Your task to perform on an android device: turn off smart reply in the gmail app Image 0: 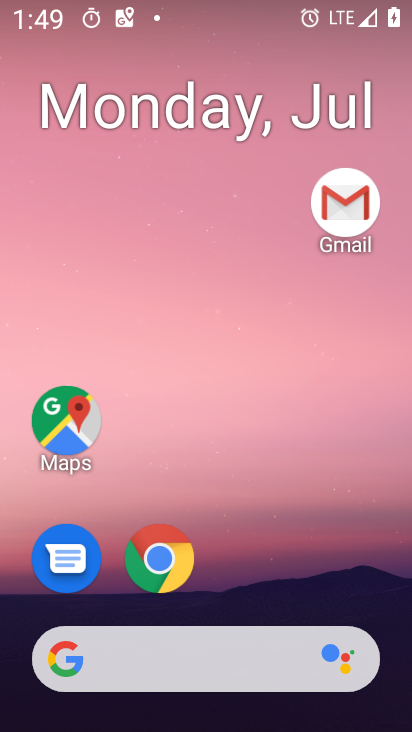
Step 0: drag from (358, 590) to (407, 127)
Your task to perform on an android device: turn off smart reply in the gmail app Image 1: 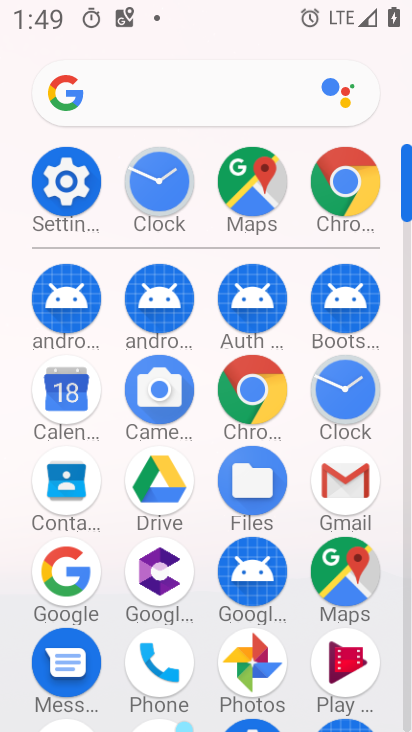
Step 1: click (354, 474)
Your task to perform on an android device: turn off smart reply in the gmail app Image 2: 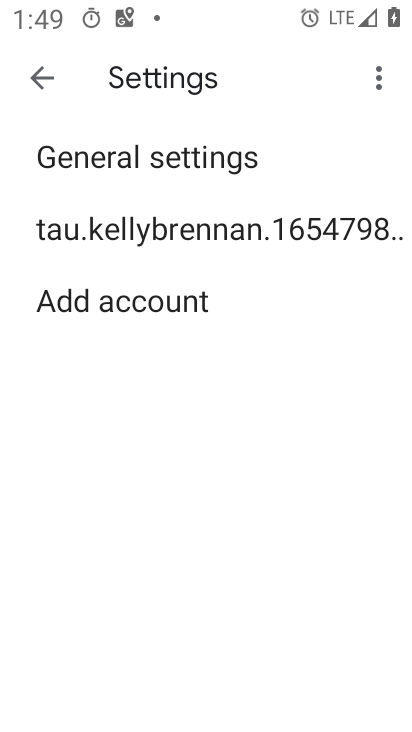
Step 2: click (254, 233)
Your task to perform on an android device: turn off smart reply in the gmail app Image 3: 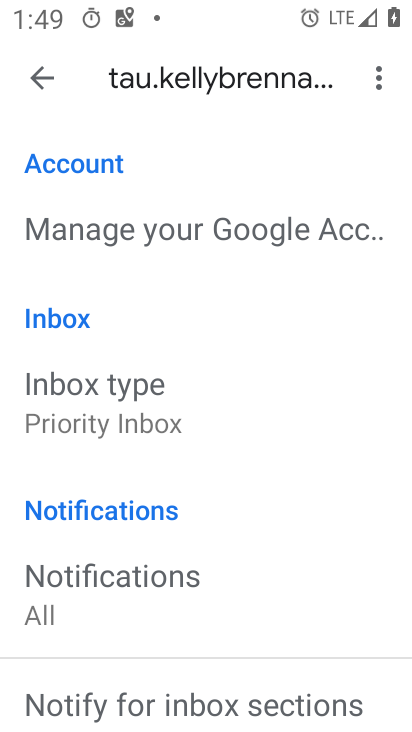
Step 3: drag from (334, 474) to (334, 407)
Your task to perform on an android device: turn off smart reply in the gmail app Image 4: 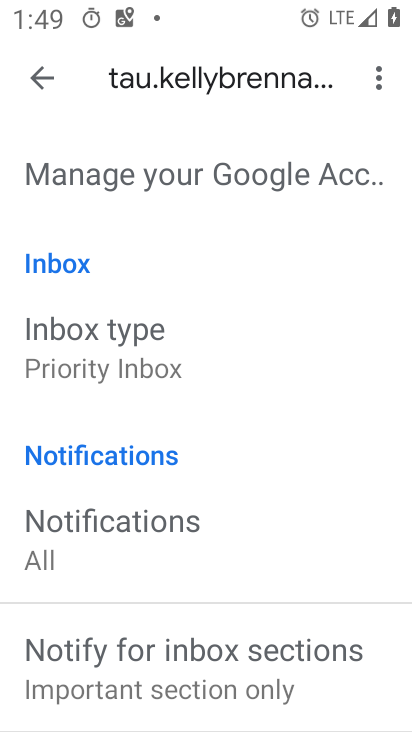
Step 4: drag from (324, 491) to (324, 415)
Your task to perform on an android device: turn off smart reply in the gmail app Image 5: 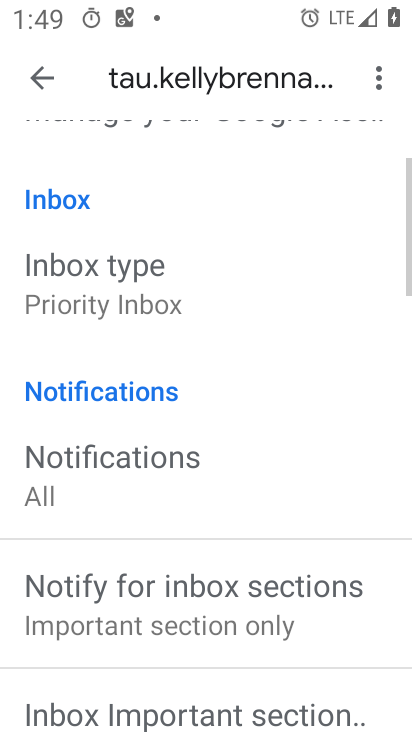
Step 5: drag from (310, 491) to (310, 420)
Your task to perform on an android device: turn off smart reply in the gmail app Image 6: 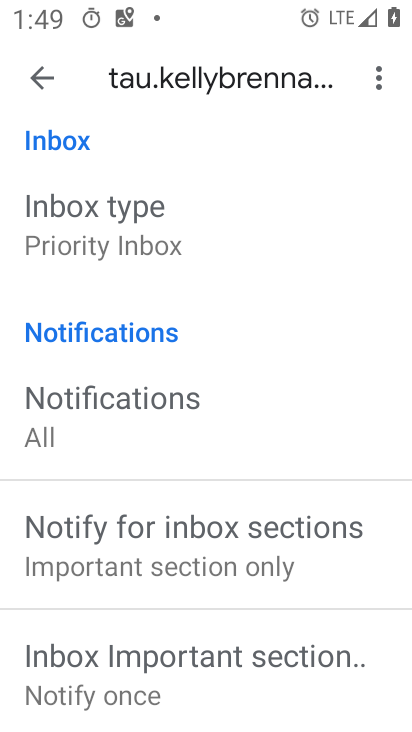
Step 6: drag from (310, 499) to (313, 412)
Your task to perform on an android device: turn off smart reply in the gmail app Image 7: 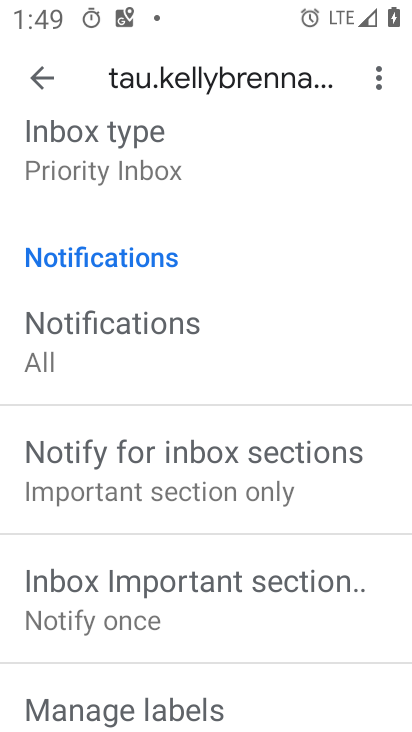
Step 7: drag from (319, 516) to (322, 423)
Your task to perform on an android device: turn off smart reply in the gmail app Image 8: 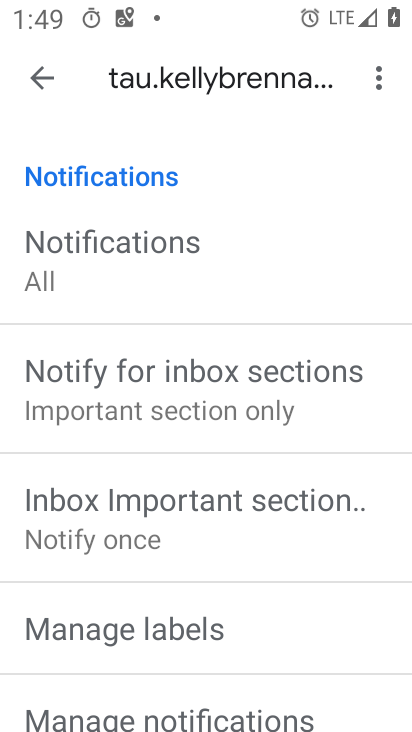
Step 8: drag from (322, 507) to (325, 439)
Your task to perform on an android device: turn off smart reply in the gmail app Image 9: 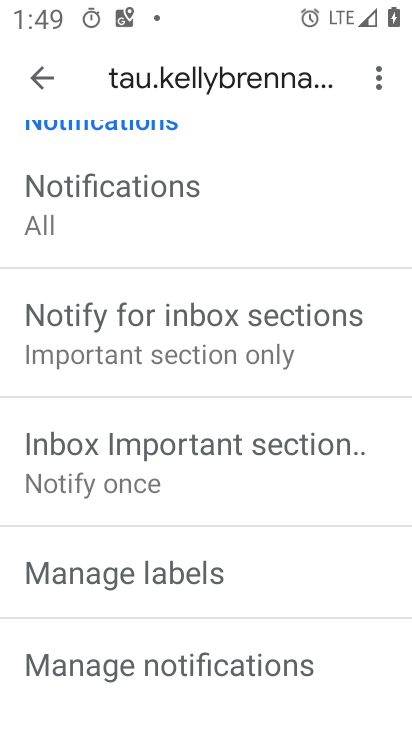
Step 9: drag from (317, 528) to (323, 440)
Your task to perform on an android device: turn off smart reply in the gmail app Image 10: 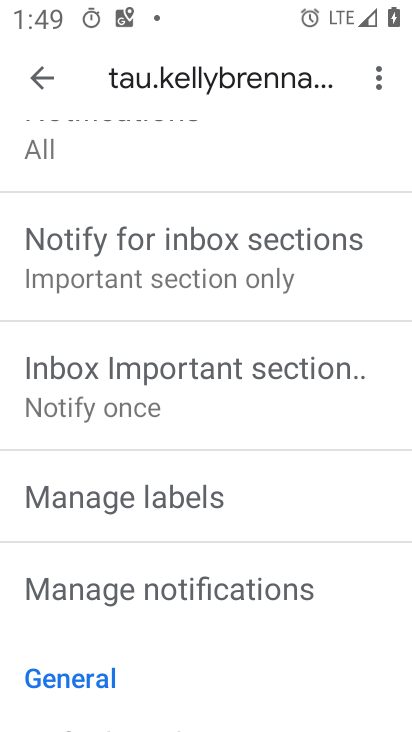
Step 10: drag from (331, 544) to (336, 441)
Your task to perform on an android device: turn off smart reply in the gmail app Image 11: 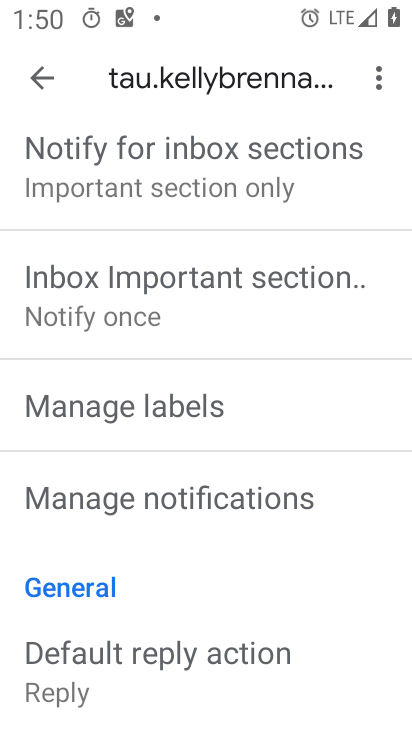
Step 11: drag from (336, 552) to (341, 459)
Your task to perform on an android device: turn off smart reply in the gmail app Image 12: 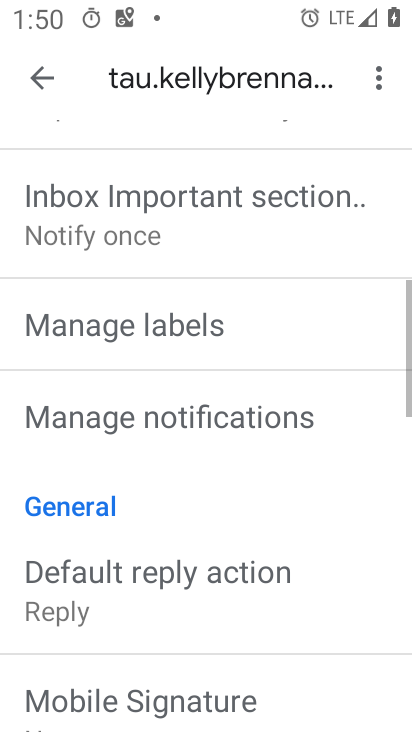
Step 12: drag from (326, 558) to (329, 471)
Your task to perform on an android device: turn off smart reply in the gmail app Image 13: 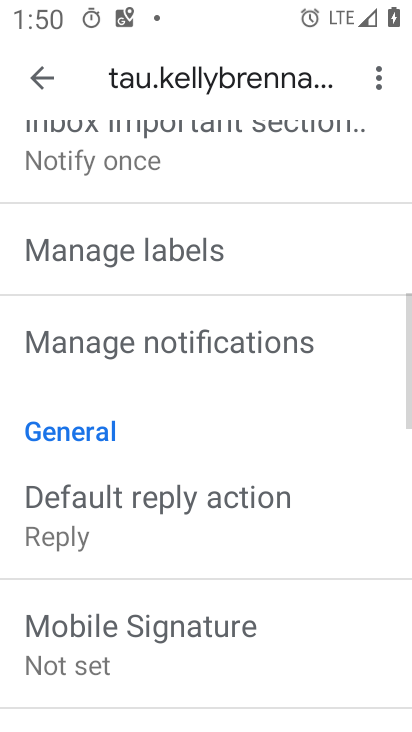
Step 13: drag from (326, 584) to (334, 421)
Your task to perform on an android device: turn off smart reply in the gmail app Image 14: 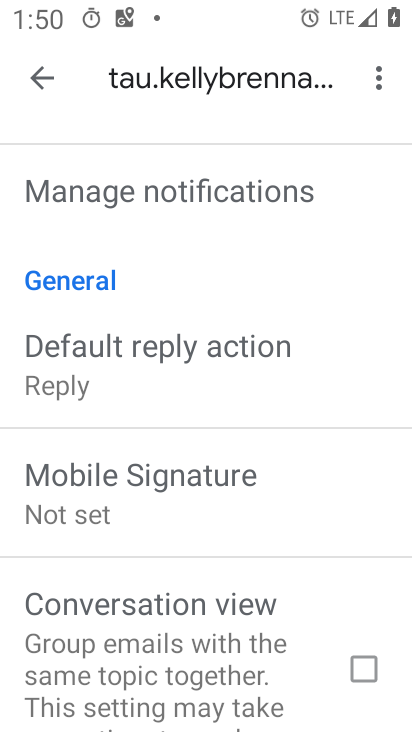
Step 14: drag from (327, 563) to (325, 450)
Your task to perform on an android device: turn off smart reply in the gmail app Image 15: 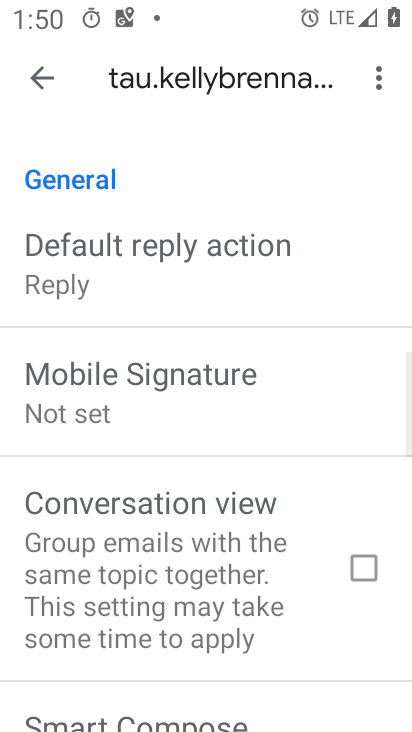
Step 15: drag from (309, 588) to (313, 477)
Your task to perform on an android device: turn off smart reply in the gmail app Image 16: 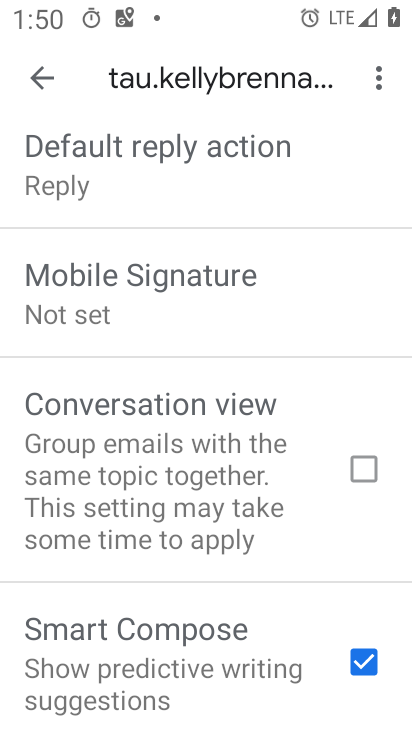
Step 16: drag from (304, 605) to (307, 470)
Your task to perform on an android device: turn off smart reply in the gmail app Image 17: 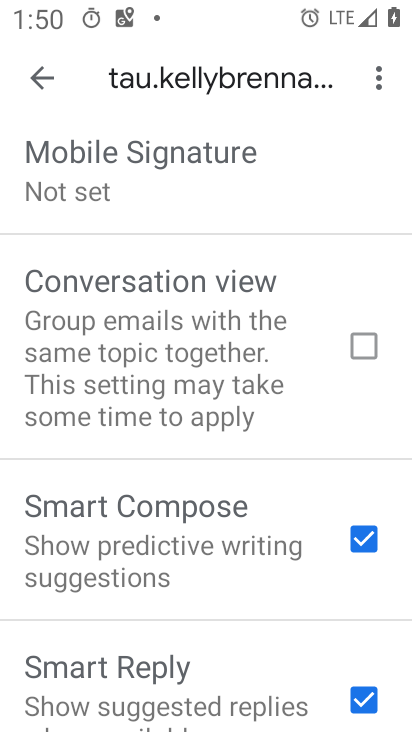
Step 17: drag from (285, 633) to (290, 477)
Your task to perform on an android device: turn off smart reply in the gmail app Image 18: 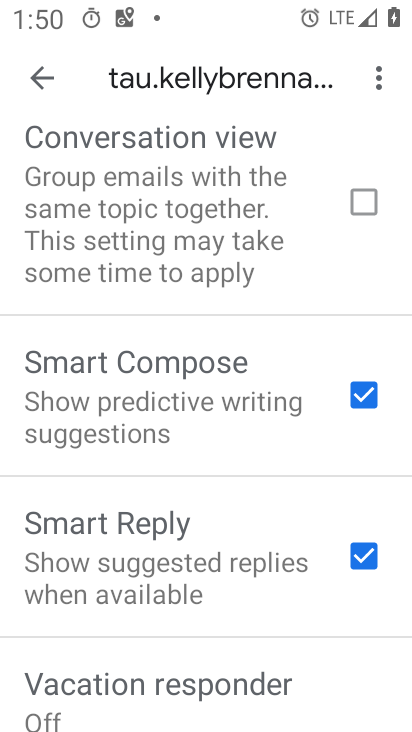
Step 18: click (366, 548)
Your task to perform on an android device: turn off smart reply in the gmail app Image 19: 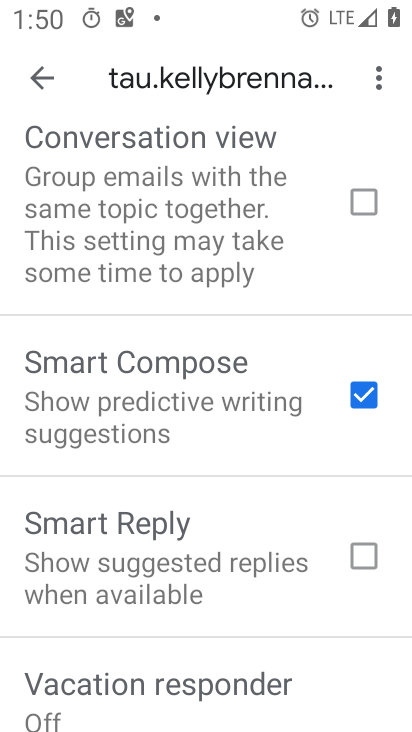
Step 19: task complete